Your task to perform on an android device: add a label to a message in the gmail app Image 0: 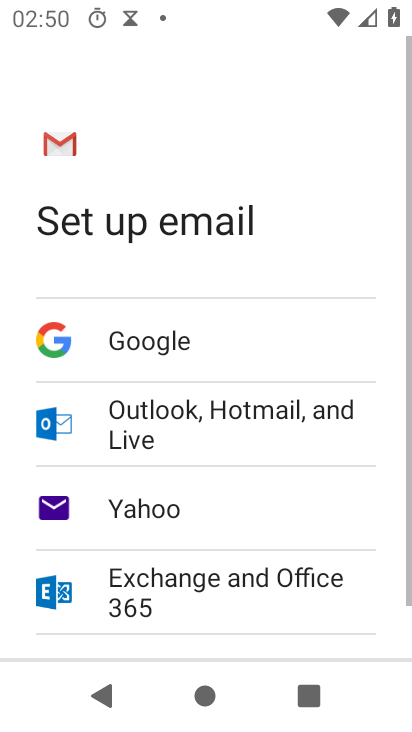
Step 0: press home button
Your task to perform on an android device: add a label to a message in the gmail app Image 1: 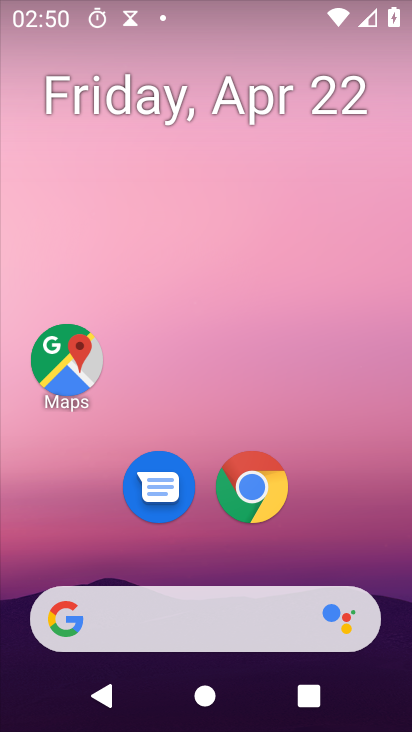
Step 1: drag from (159, 626) to (261, 235)
Your task to perform on an android device: add a label to a message in the gmail app Image 2: 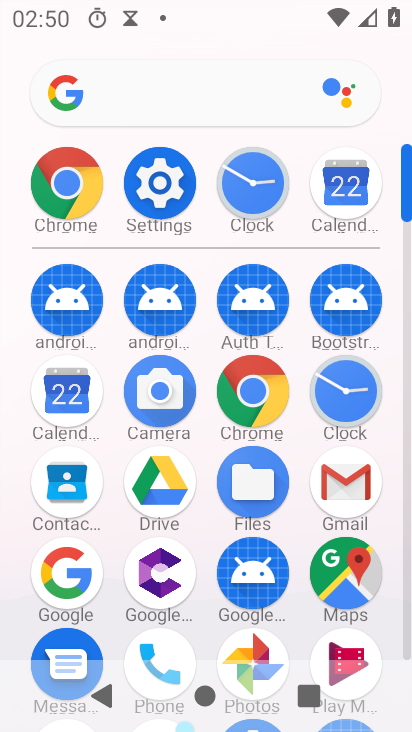
Step 2: click (353, 496)
Your task to perform on an android device: add a label to a message in the gmail app Image 3: 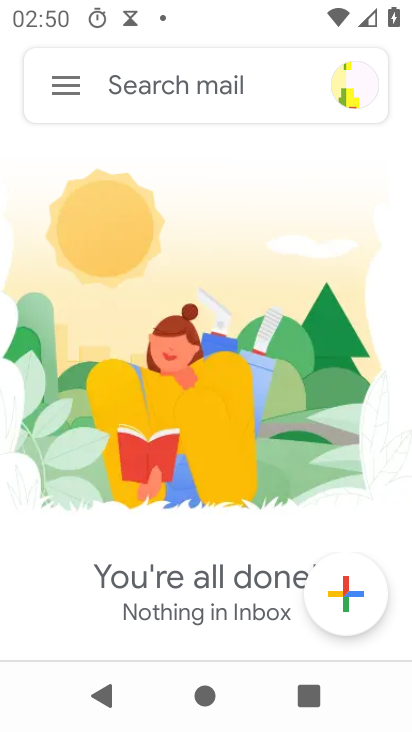
Step 3: task complete